Your task to perform on an android device: Open accessibility settings Image 0: 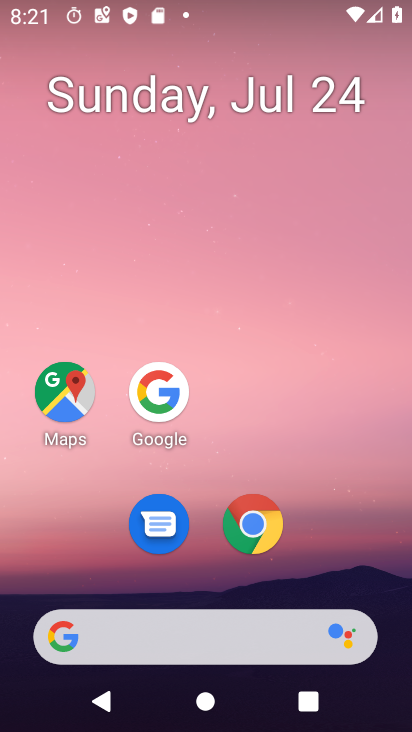
Step 0: press home button
Your task to perform on an android device: Open accessibility settings Image 1: 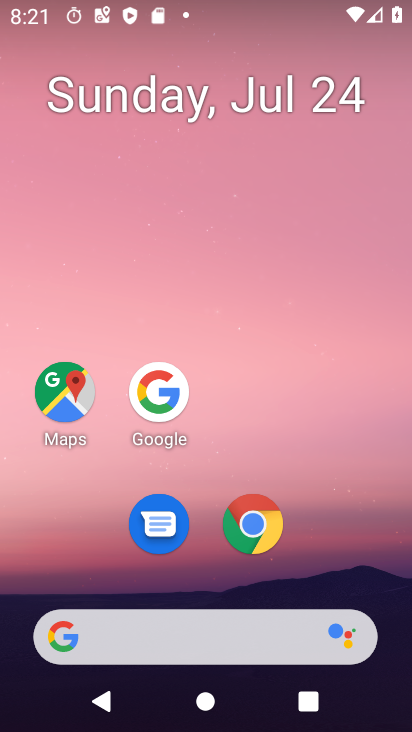
Step 1: drag from (139, 635) to (287, 47)
Your task to perform on an android device: Open accessibility settings Image 2: 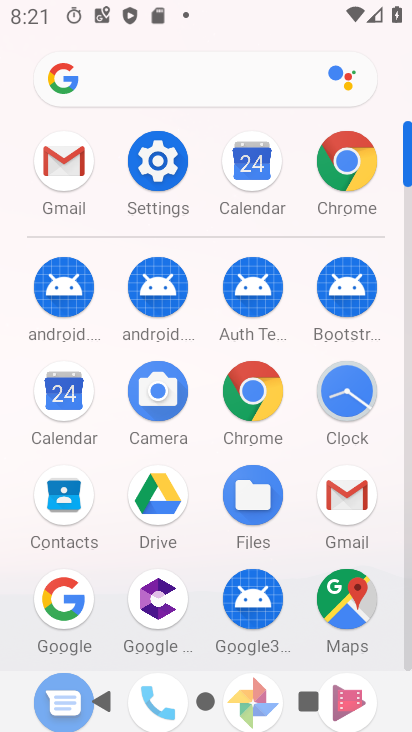
Step 2: click (168, 168)
Your task to perform on an android device: Open accessibility settings Image 3: 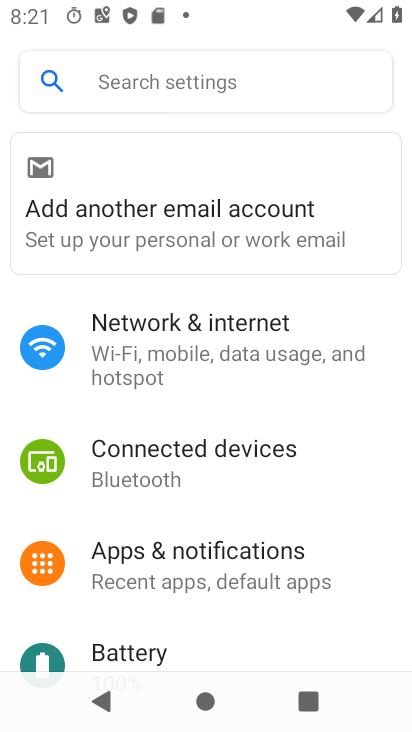
Step 3: drag from (205, 632) to (377, 106)
Your task to perform on an android device: Open accessibility settings Image 4: 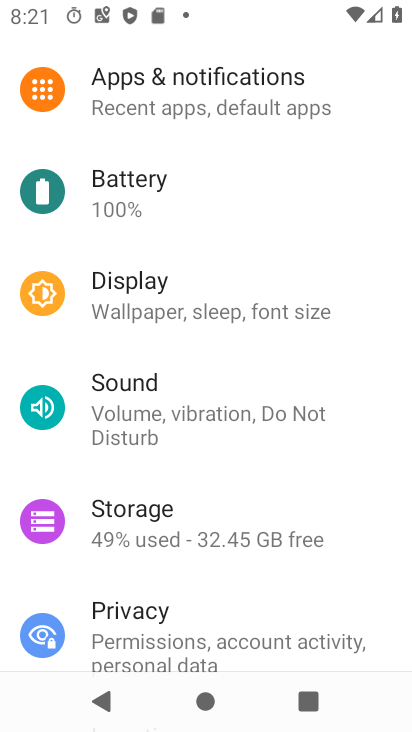
Step 4: drag from (193, 620) to (344, 156)
Your task to perform on an android device: Open accessibility settings Image 5: 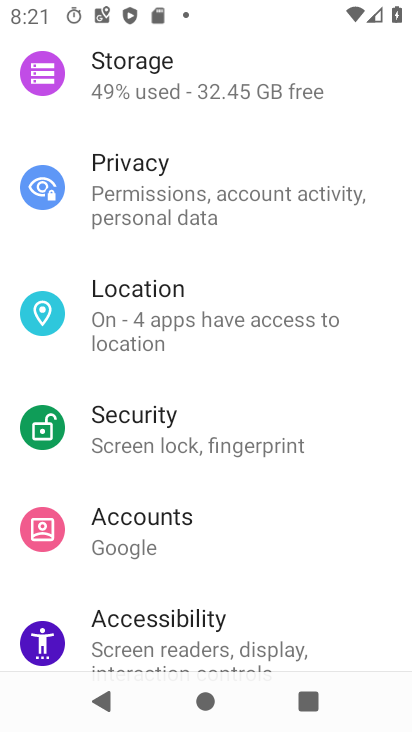
Step 5: drag from (214, 588) to (306, 194)
Your task to perform on an android device: Open accessibility settings Image 6: 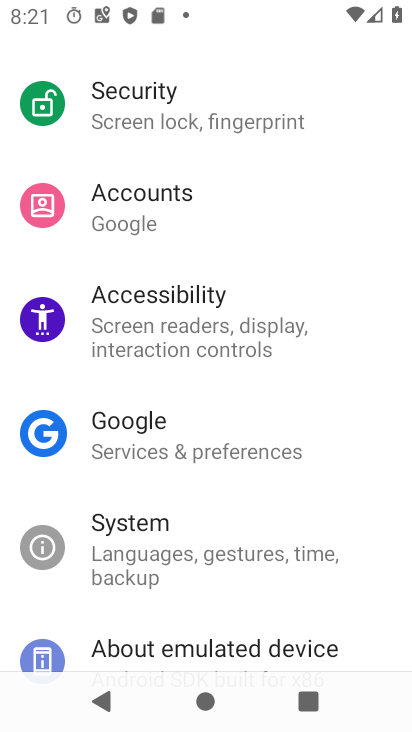
Step 6: click (207, 304)
Your task to perform on an android device: Open accessibility settings Image 7: 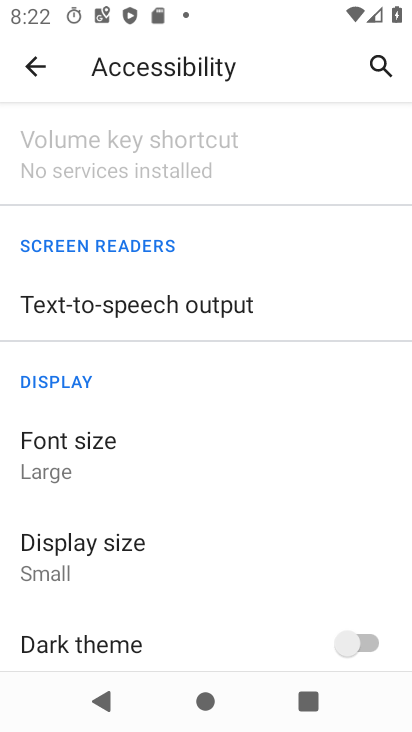
Step 7: task complete